Your task to perform on an android device: Open accessibility settings Image 0: 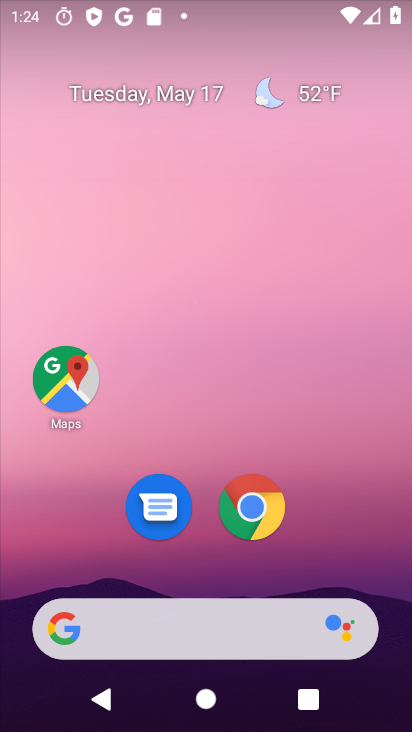
Step 0: drag from (203, 548) to (230, 78)
Your task to perform on an android device: Open accessibility settings Image 1: 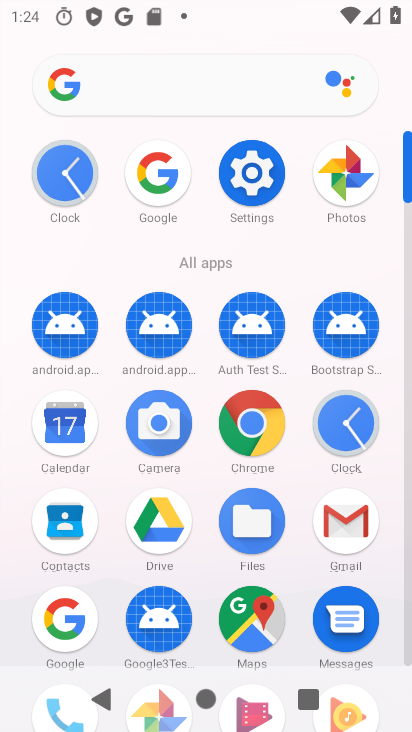
Step 1: click (252, 165)
Your task to perform on an android device: Open accessibility settings Image 2: 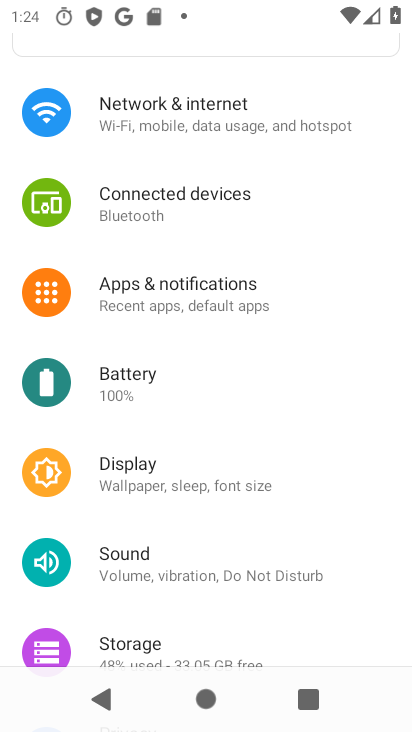
Step 2: drag from (193, 539) to (179, 48)
Your task to perform on an android device: Open accessibility settings Image 3: 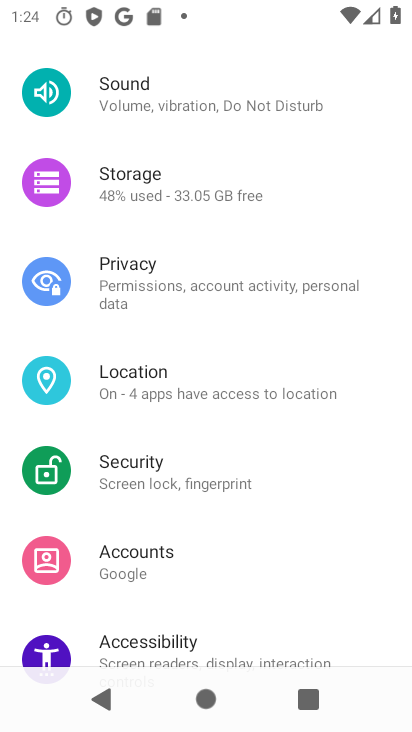
Step 3: drag from (183, 552) to (177, 427)
Your task to perform on an android device: Open accessibility settings Image 4: 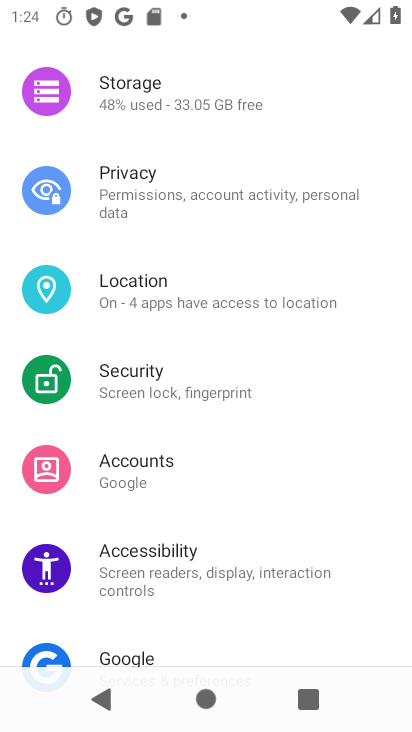
Step 4: click (136, 557)
Your task to perform on an android device: Open accessibility settings Image 5: 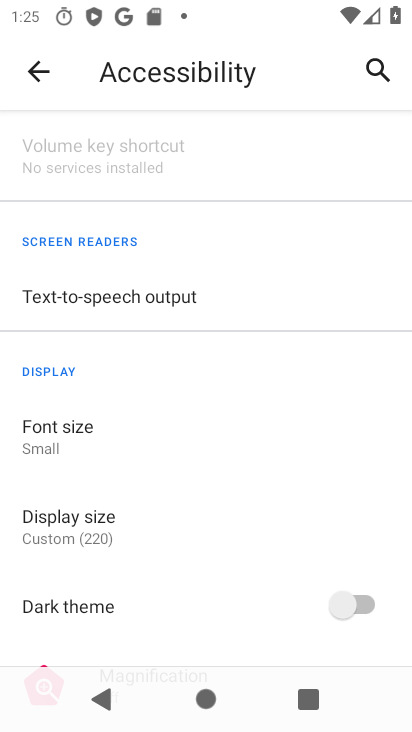
Step 5: task complete